Your task to perform on an android device: search for starred emails in the gmail app Image 0: 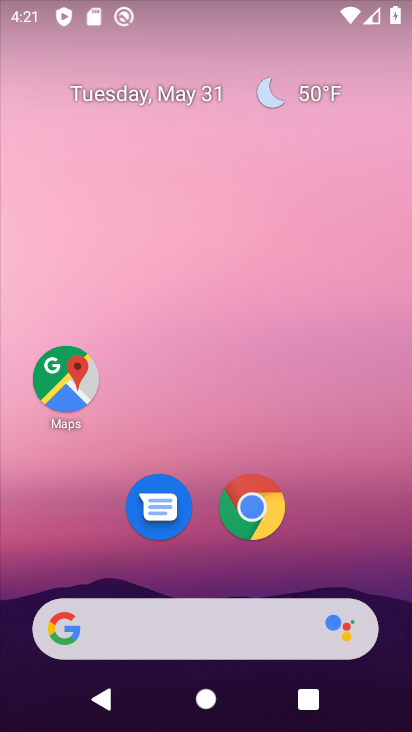
Step 0: drag from (340, 504) to (271, 71)
Your task to perform on an android device: search for starred emails in the gmail app Image 1: 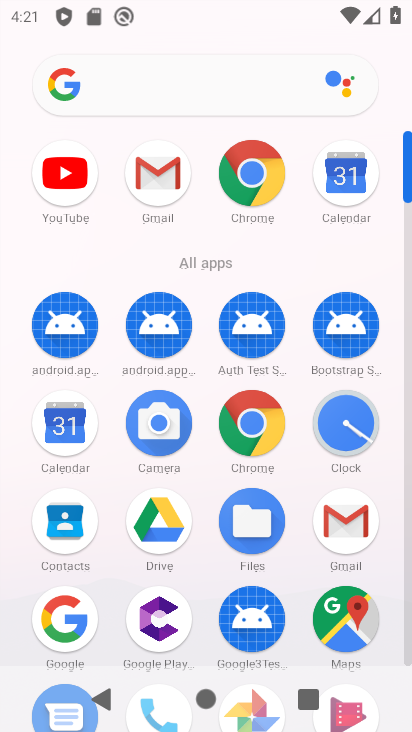
Step 1: click (167, 167)
Your task to perform on an android device: search for starred emails in the gmail app Image 2: 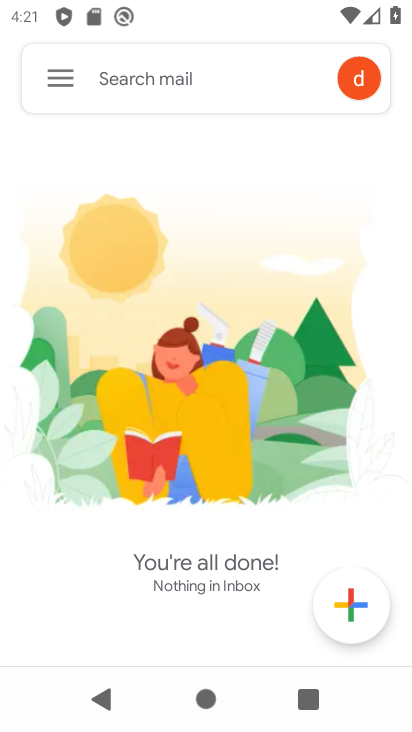
Step 2: click (63, 73)
Your task to perform on an android device: search for starred emails in the gmail app Image 3: 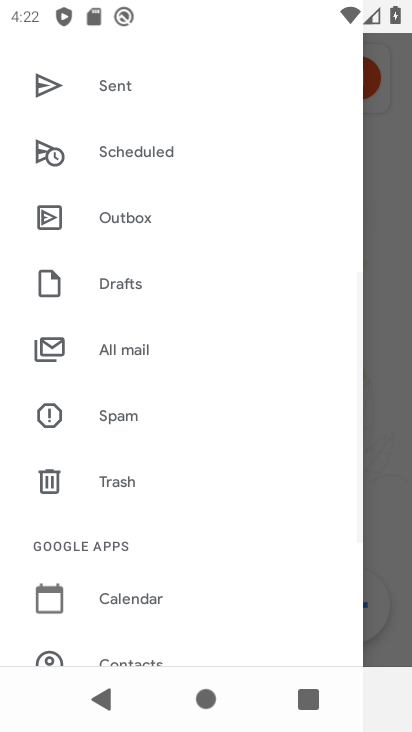
Step 3: drag from (193, 221) to (208, 625)
Your task to perform on an android device: search for starred emails in the gmail app Image 4: 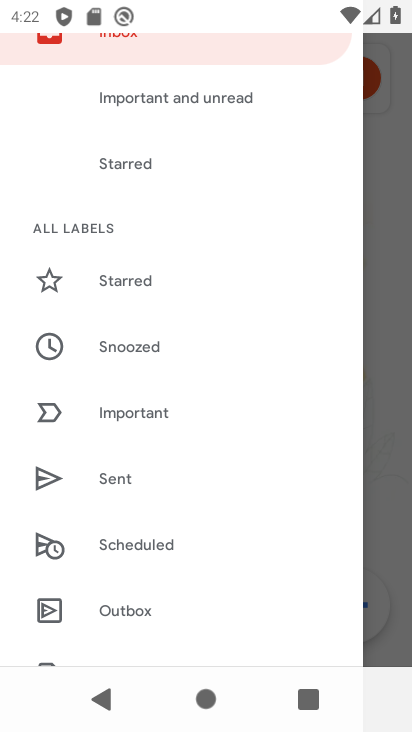
Step 4: click (159, 271)
Your task to perform on an android device: search for starred emails in the gmail app Image 5: 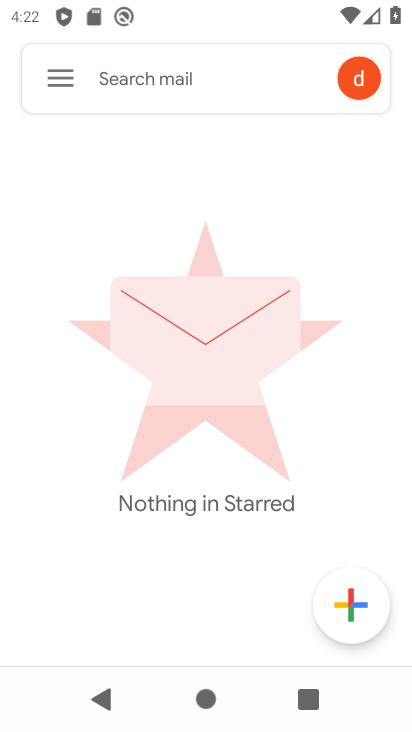
Step 5: task complete